Your task to perform on an android device: Go to Maps Image 0: 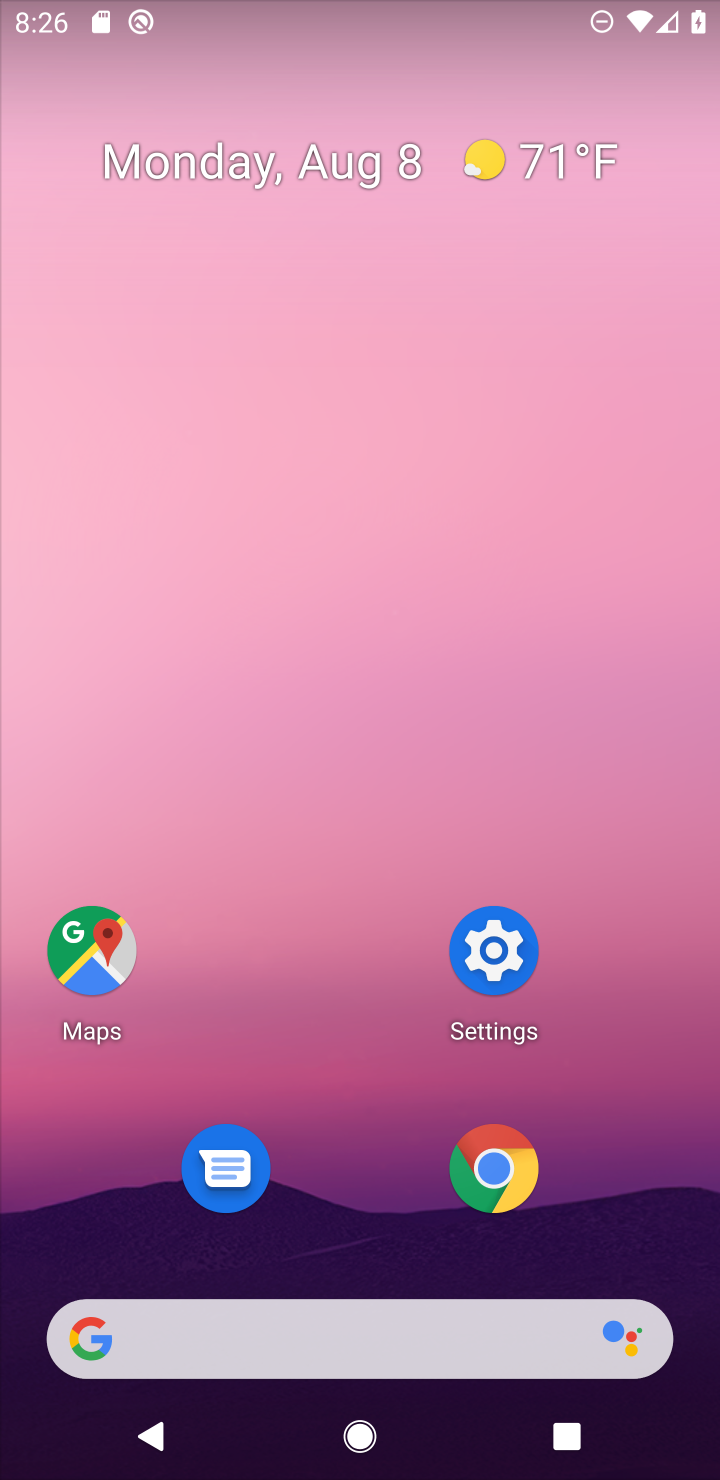
Step 0: click (106, 965)
Your task to perform on an android device: Go to Maps Image 1: 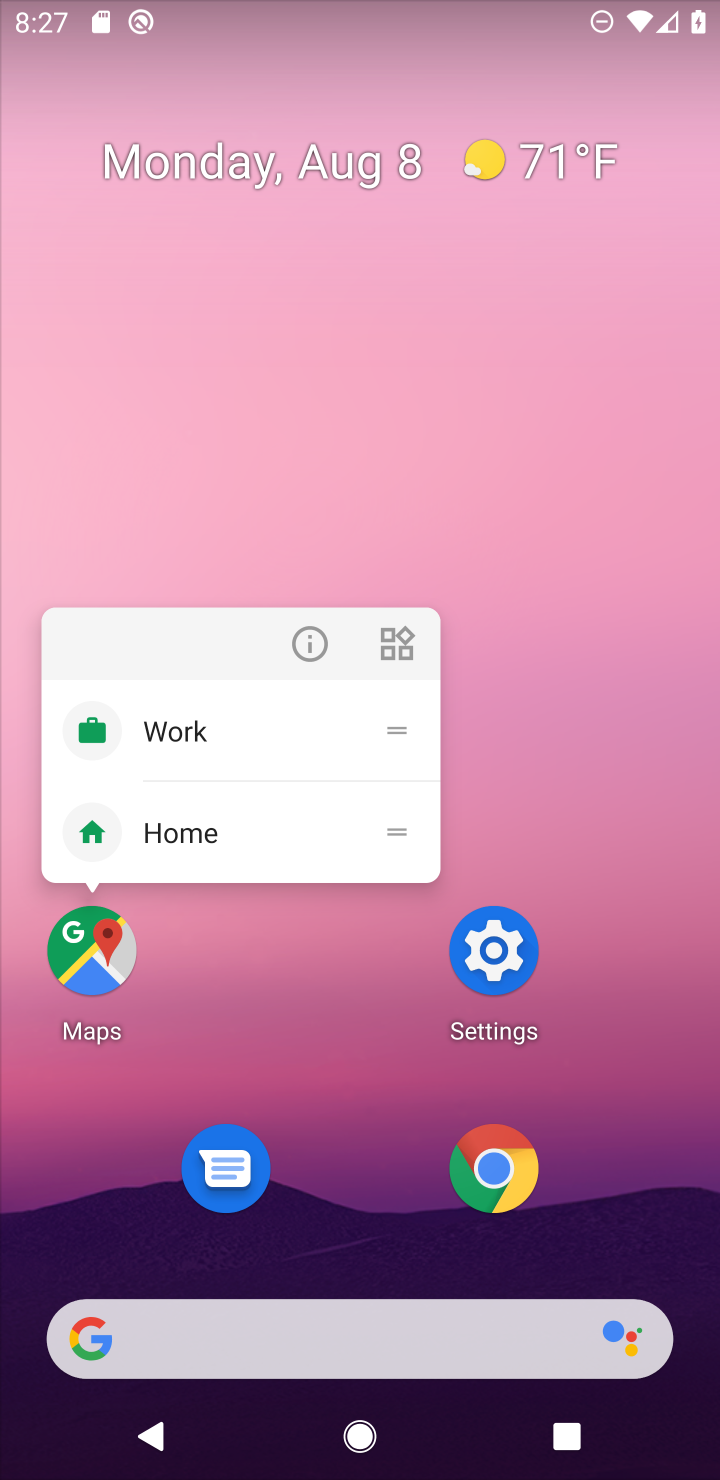
Step 1: click (106, 971)
Your task to perform on an android device: Go to Maps Image 2: 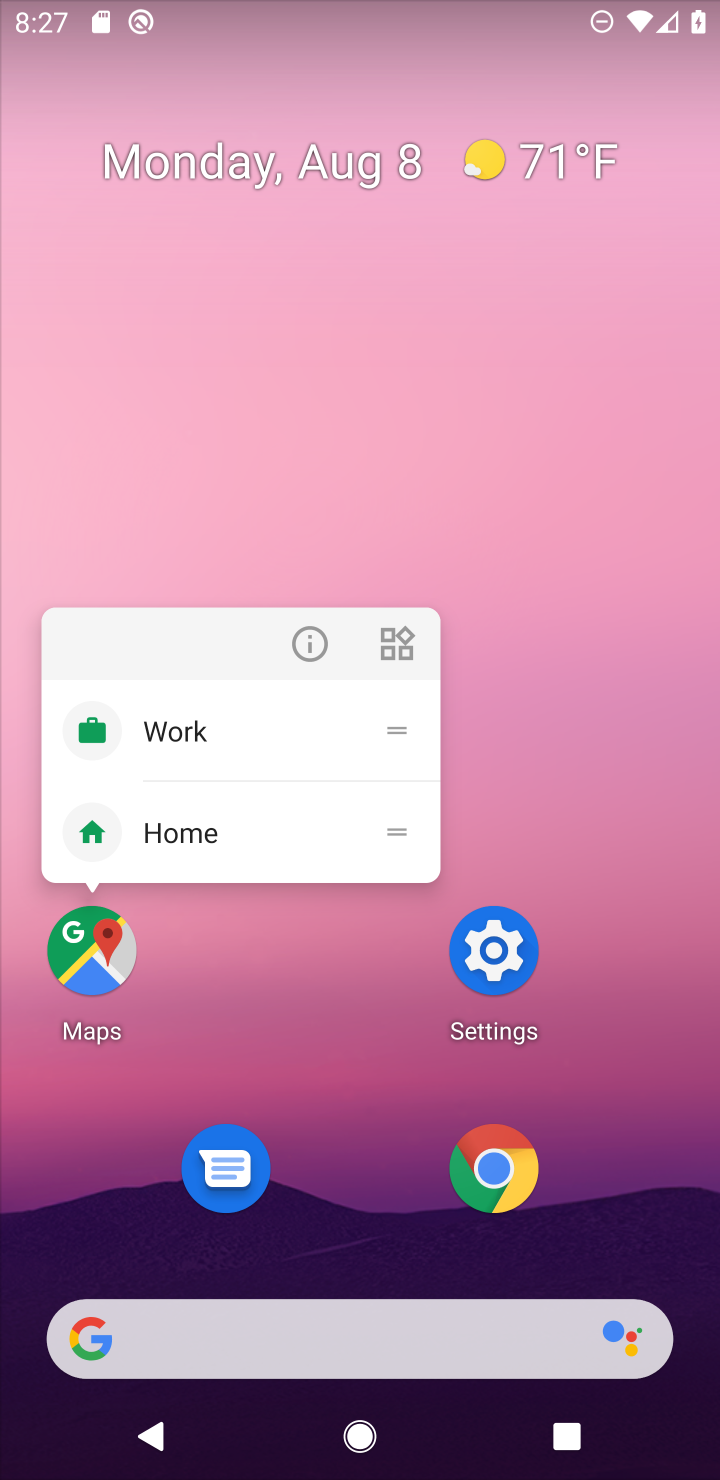
Step 2: click (93, 925)
Your task to perform on an android device: Go to Maps Image 3: 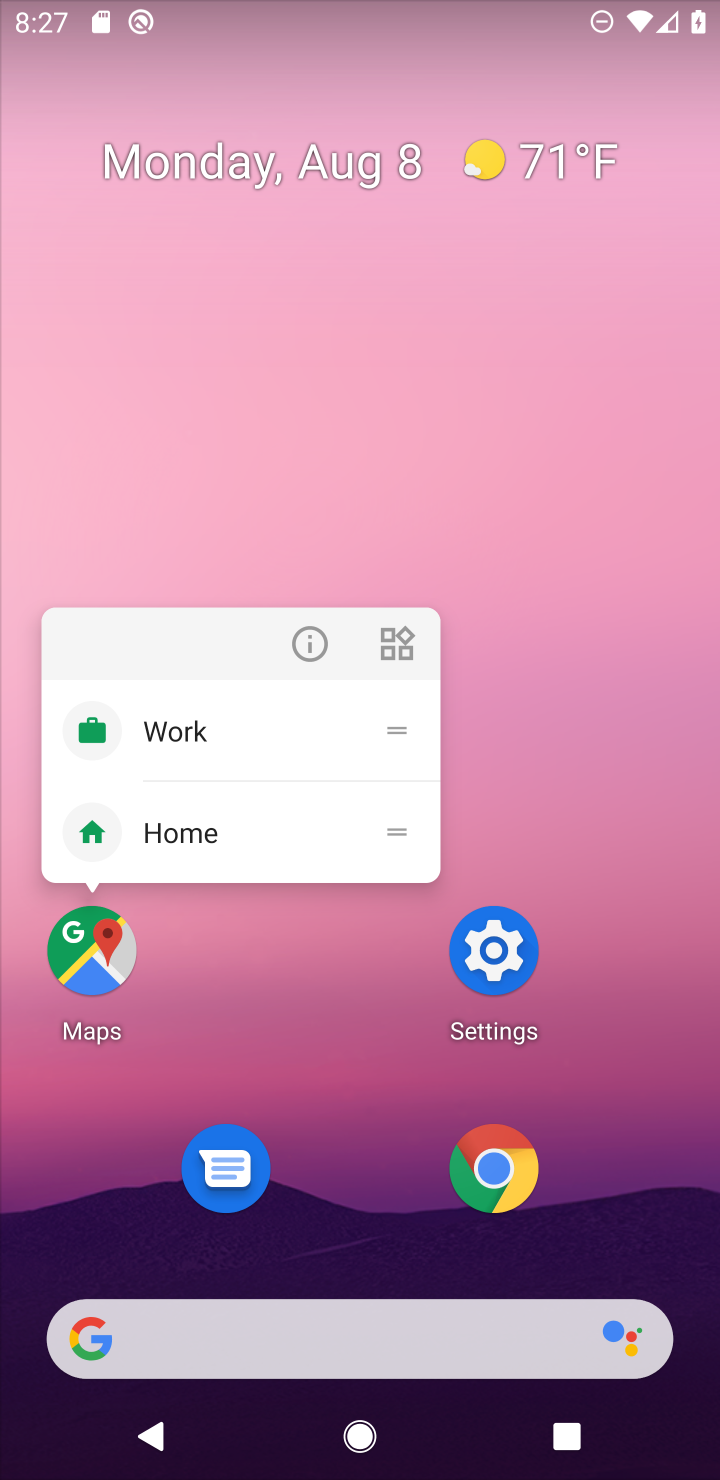
Step 3: click (95, 941)
Your task to perform on an android device: Go to Maps Image 4: 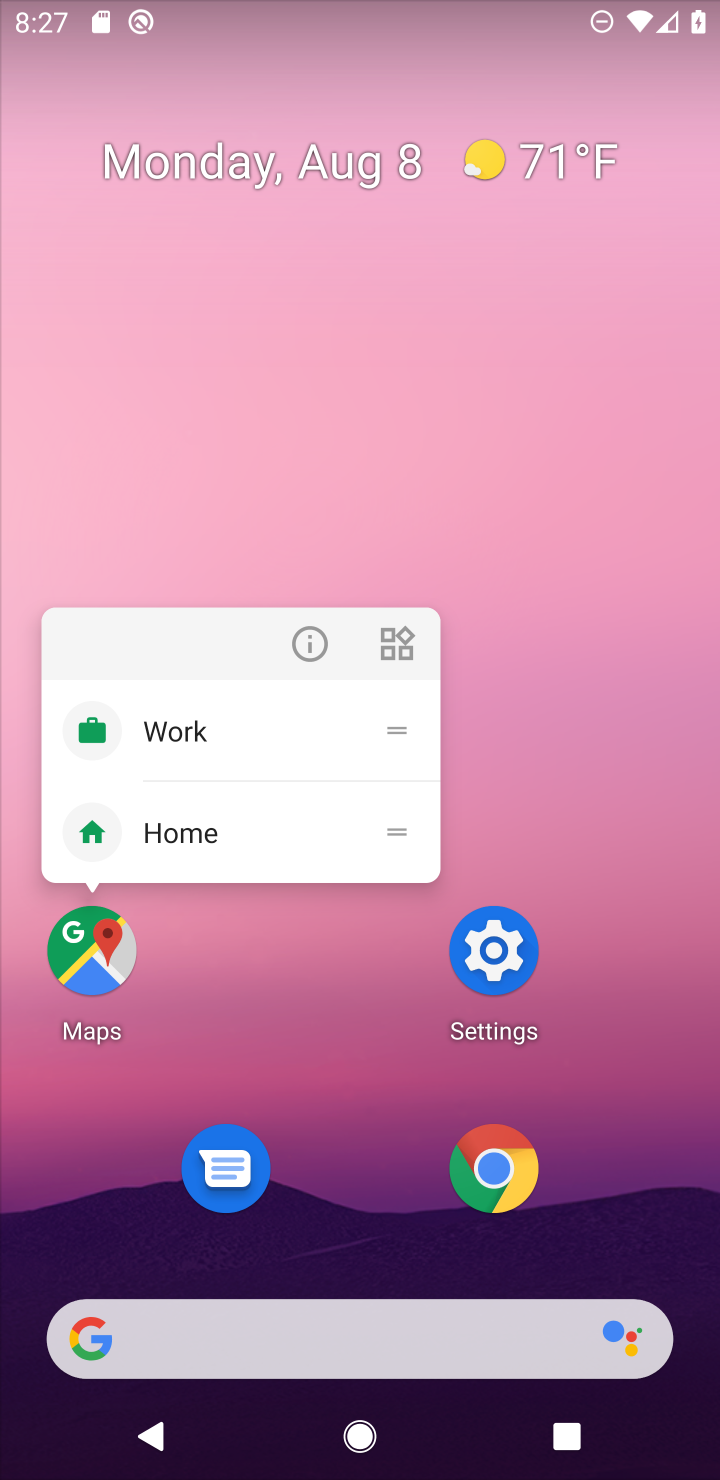
Step 4: click (83, 920)
Your task to perform on an android device: Go to Maps Image 5: 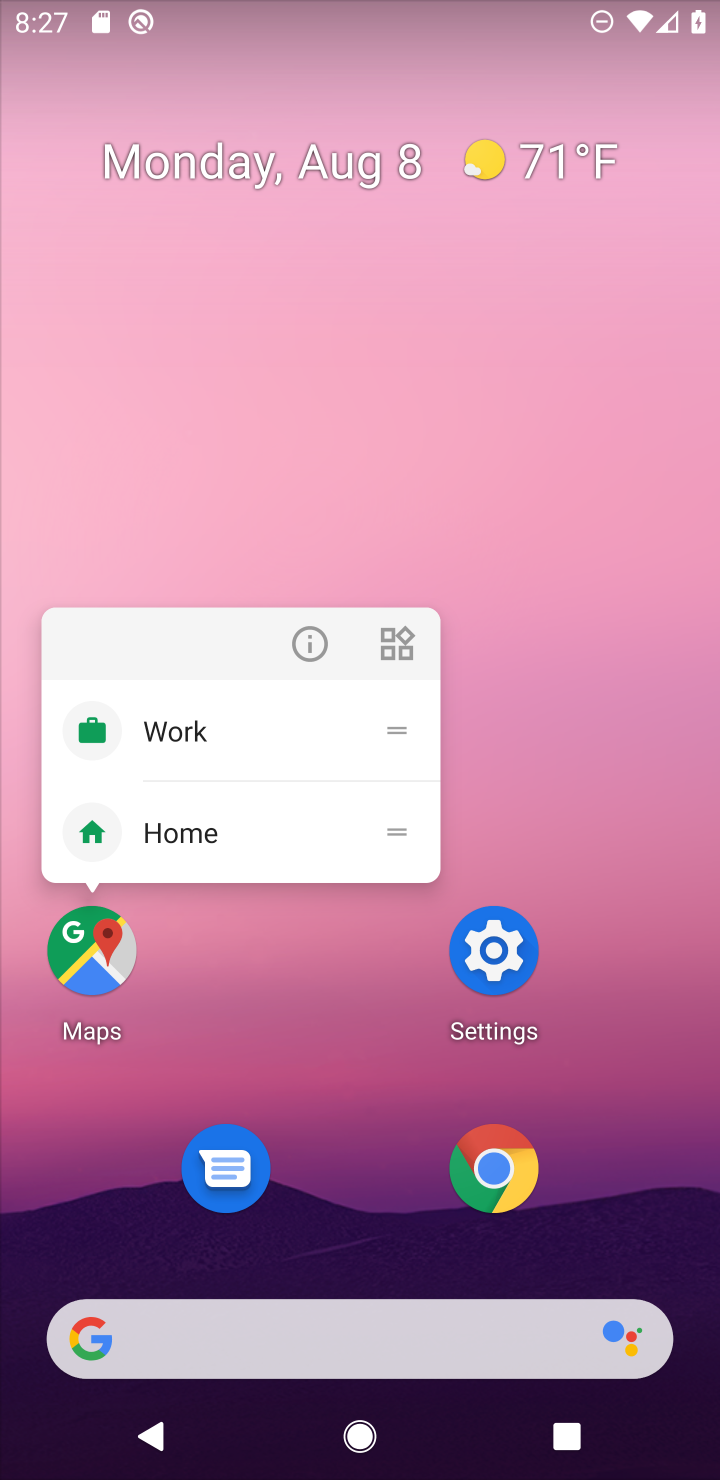
Step 5: click (91, 948)
Your task to perform on an android device: Go to Maps Image 6: 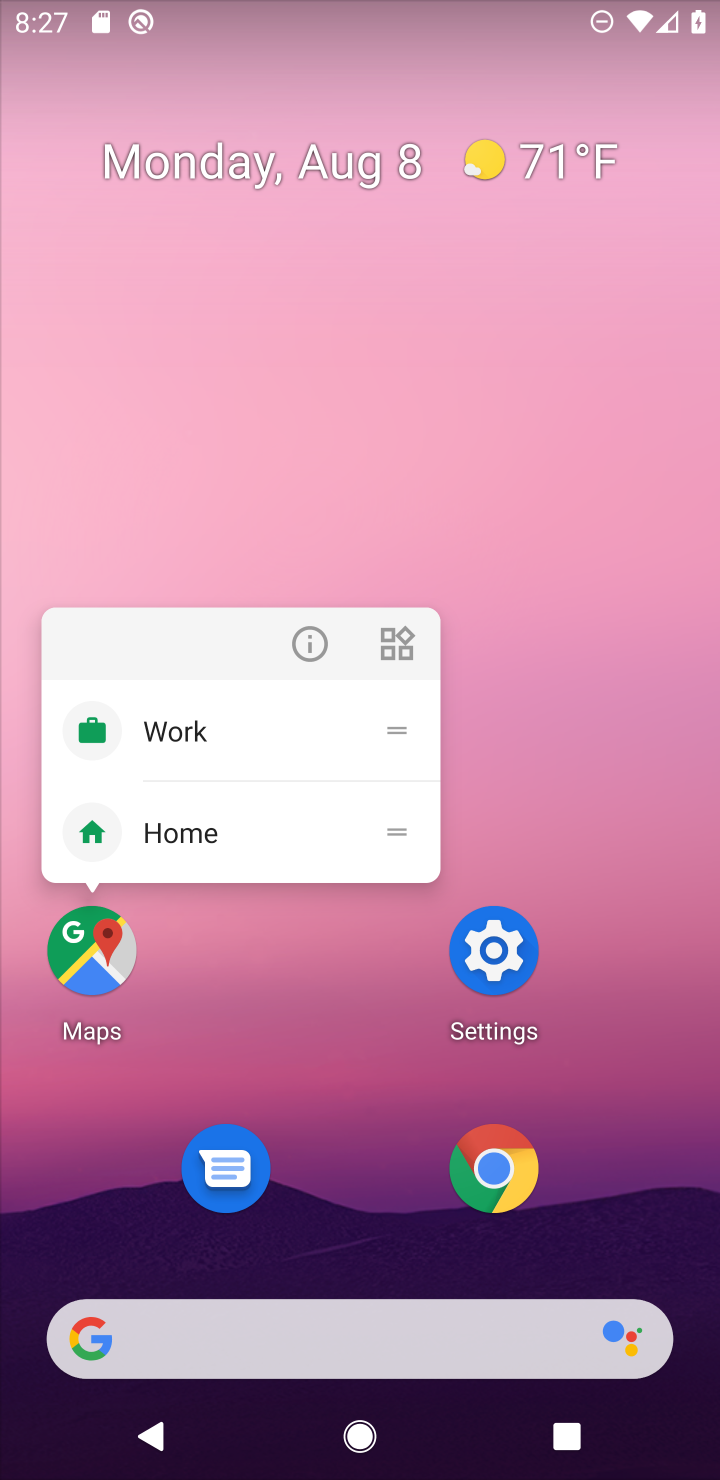
Step 6: click (91, 947)
Your task to perform on an android device: Go to Maps Image 7: 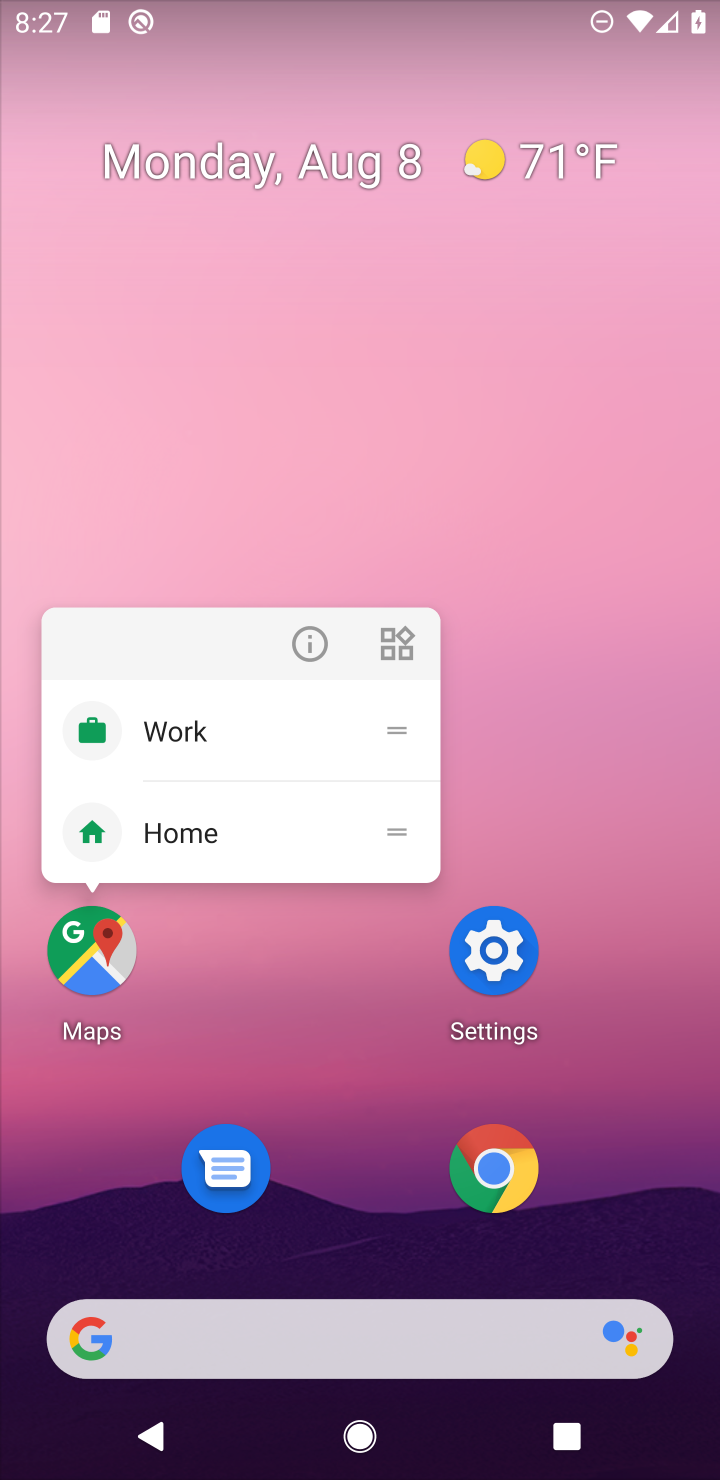
Step 7: click (85, 956)
Your task to perform on an android device: Go to Maps Image 8: 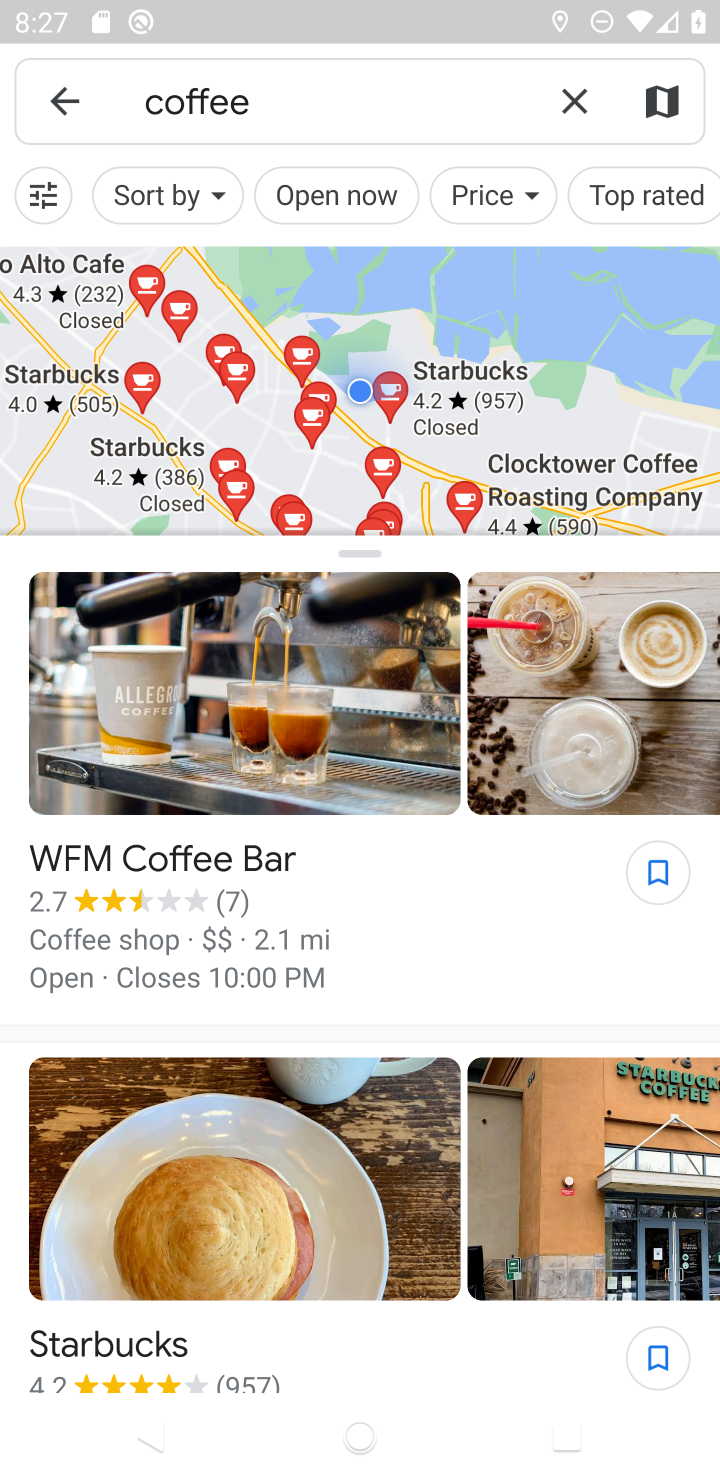
Step 8: click (58, 84)
Your task to perform on an android device: Go to Maps Image 9: 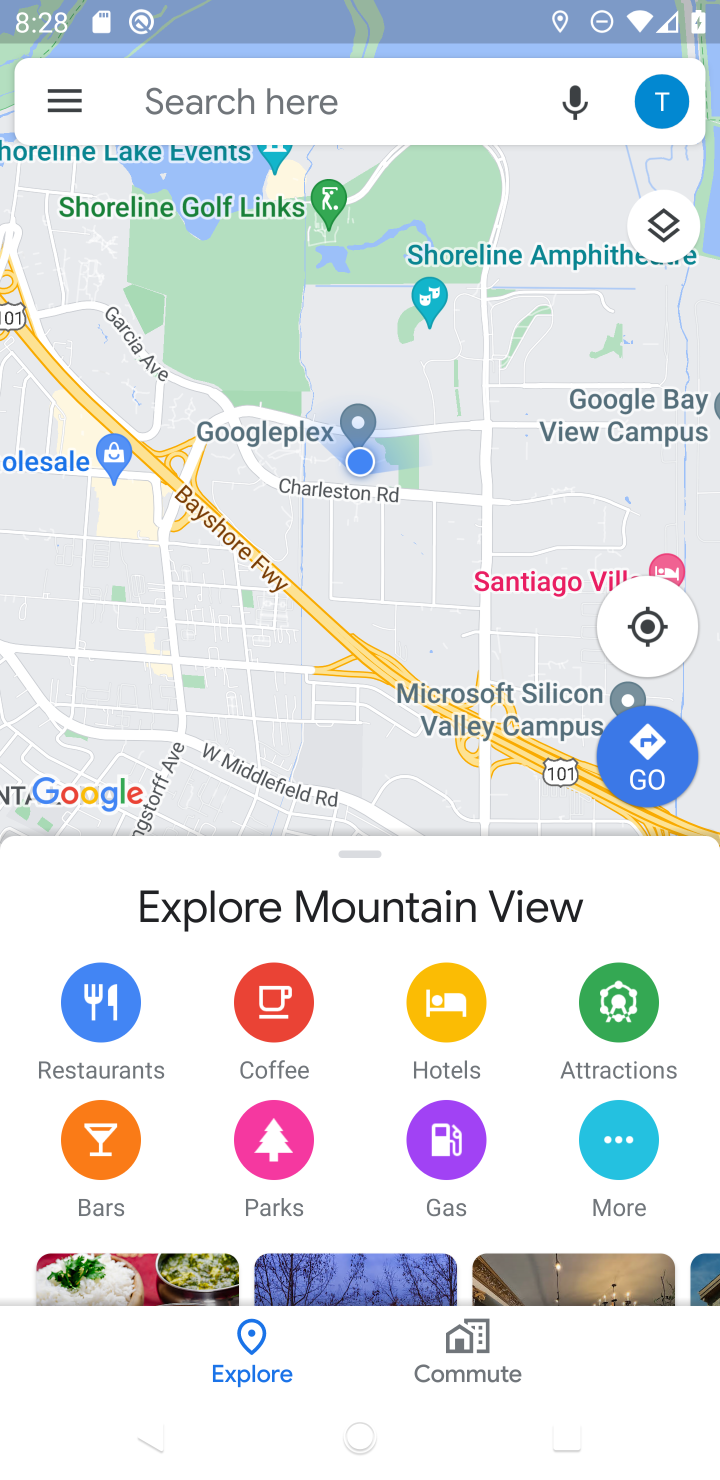
Step 9: task complete